Your task to perform on an android device: Go to CNN.com Image 0: 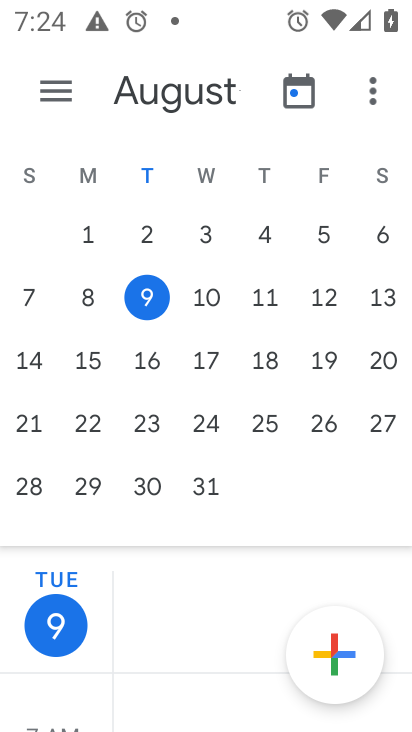
Step 0: press home button
Your task to perform on an android device: Go to CNN.com Image 1: 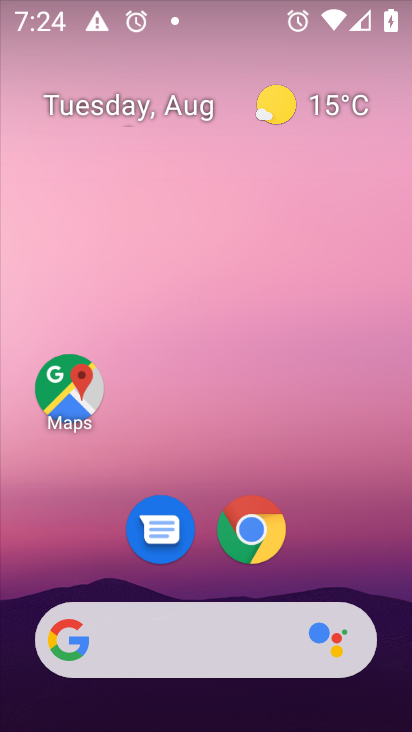
Step 1: click (44, 640)
Your task to perform on an android device: Go to CNN.com Image 2: 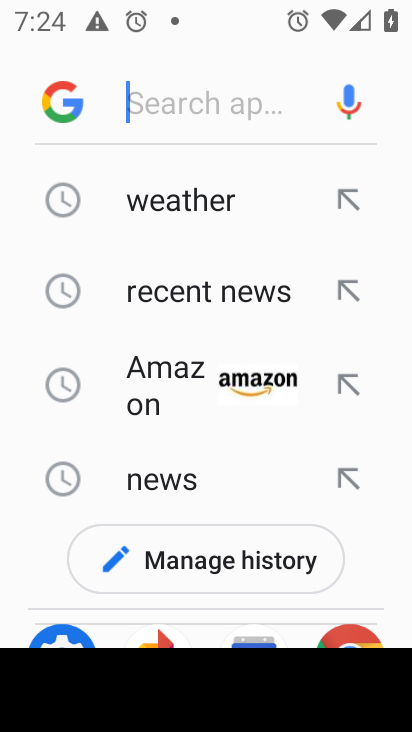
Step 2: type "CNN.com"
Your task to perform on an android device: Go to CNN.com Image 3: 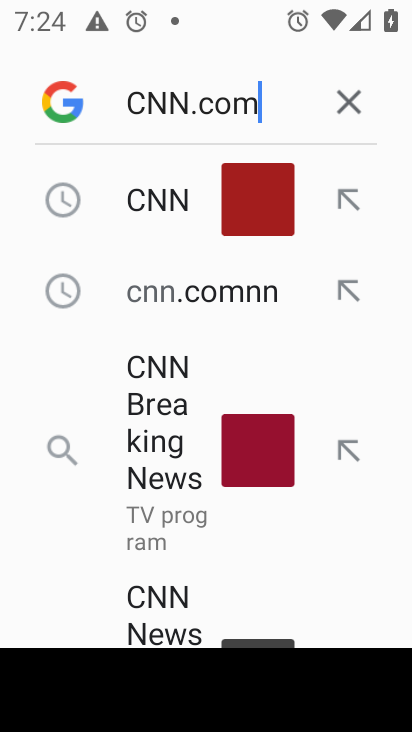
Step 3: press enter
Your task to perform on an android device: Go to CNN.com Image 4: 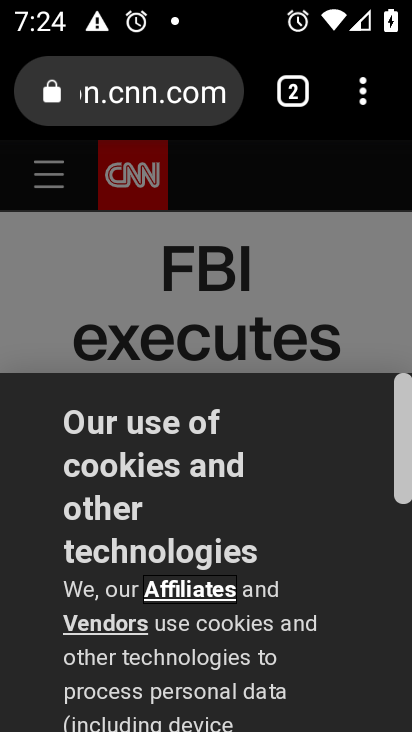
Step 4: task complete